Your task to perform on an android device: Open privacy settings Image 0: 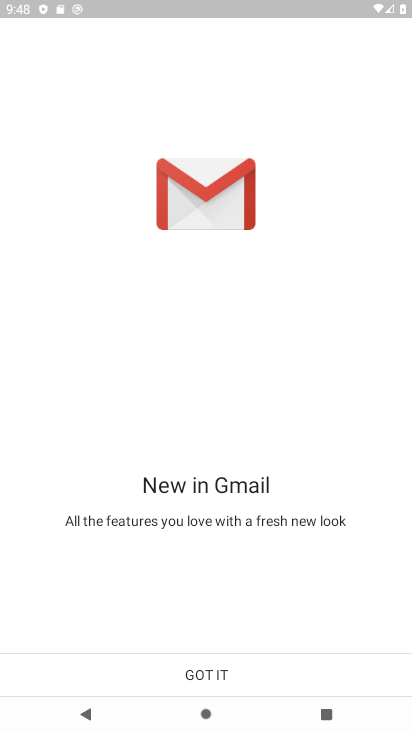
Step 0: press home button
Your task to perform on an android device: Open privacy settings Image 1: 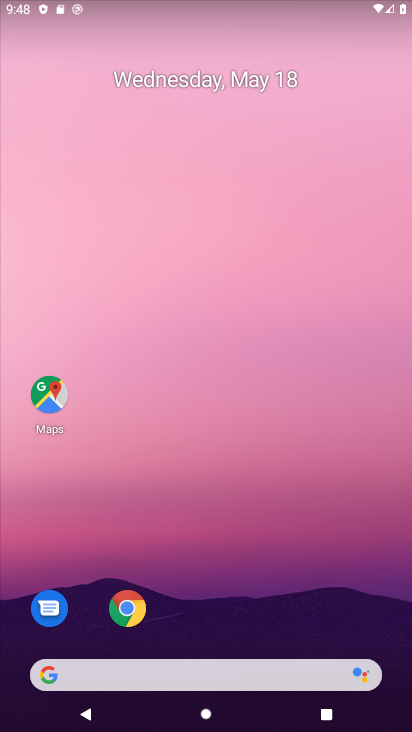
Step 1: drag from (204, 616) to (294, 60)
Your task to perform on an android device: Open privacy settings Image 2: 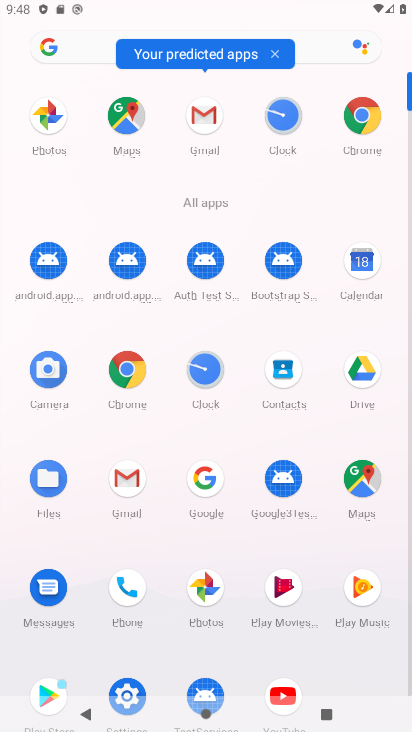
Step 2: click (132, 677)
Your task to perform on an android device: Open privacy settings Image 3: 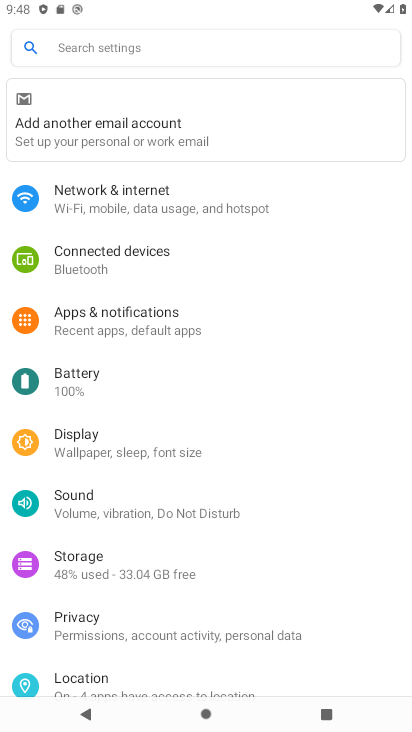
Step 3: click (122, 633)
Your task to perform on an android device: Open privacy settings Image 4: 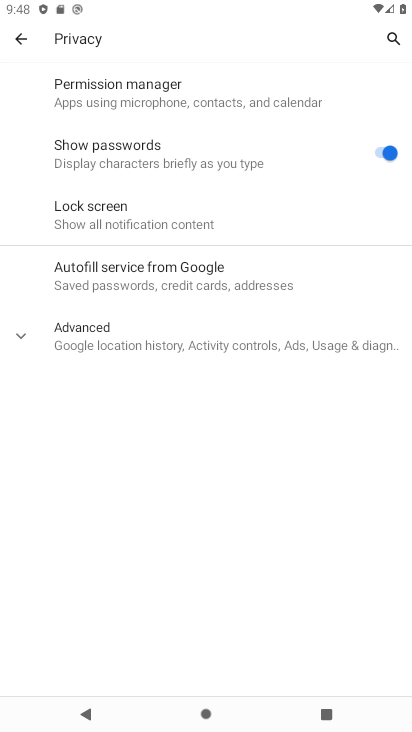
Step 4: task complete